Your task to perform on an android device: Go to accessibility settings Image 0: 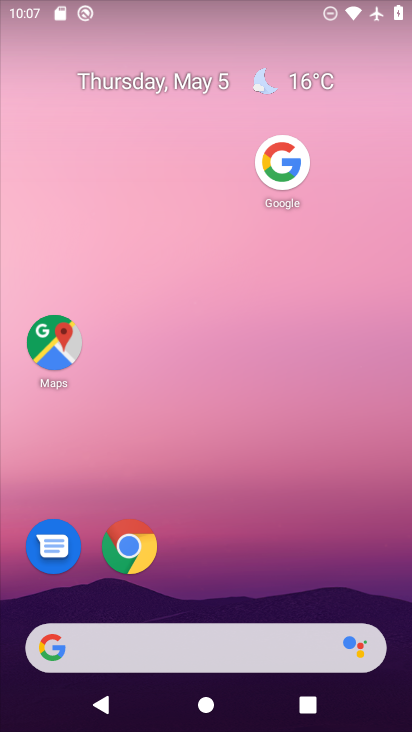
Step 0: drag from (208, 646) to (298, 67)
Your task to perform on an android device: Go to accessibility settings Image 1: 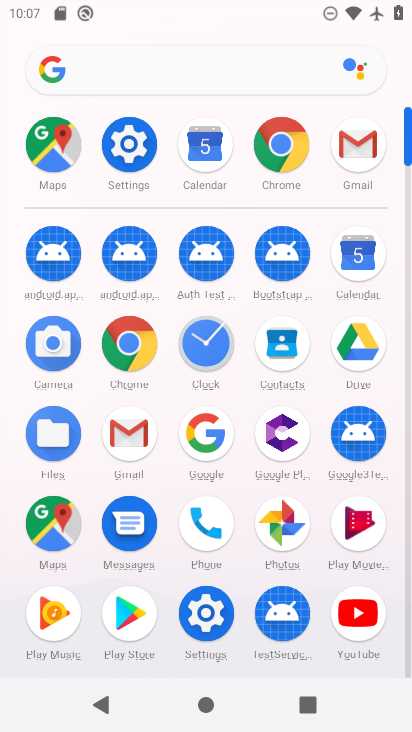
Step 1: click (123, 143)
Your task to perform on an android device: Go to accessibility settings Image 2: 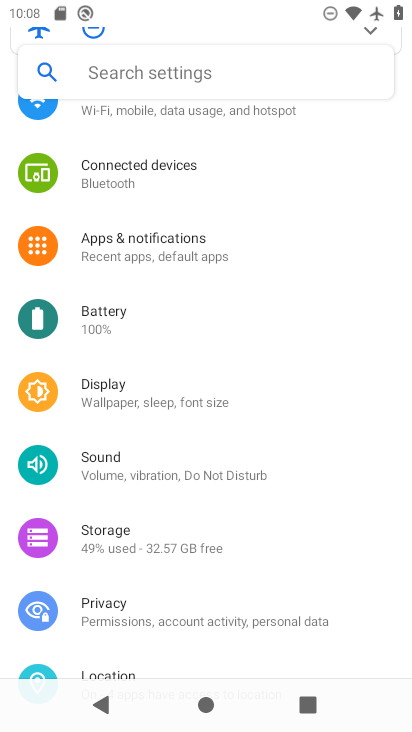
Step 2: drag from (186, 578) to (290, 201)
Your task to perform on an android device: Go to accessibility settings Image 3: 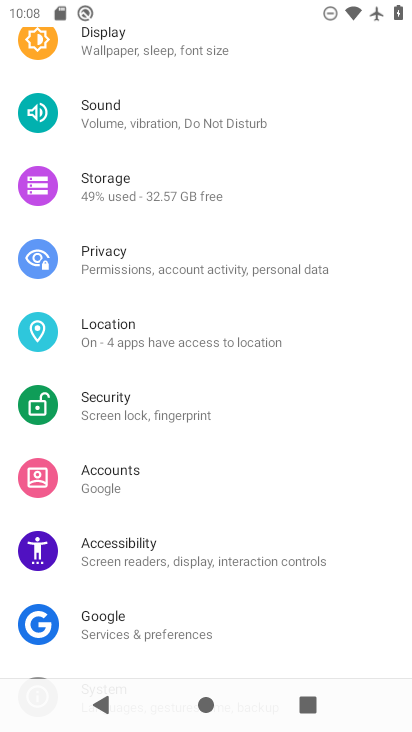
Step 3: click (124, 546)
Your task to perform on an android device: Go to accessibility settings Image 4: 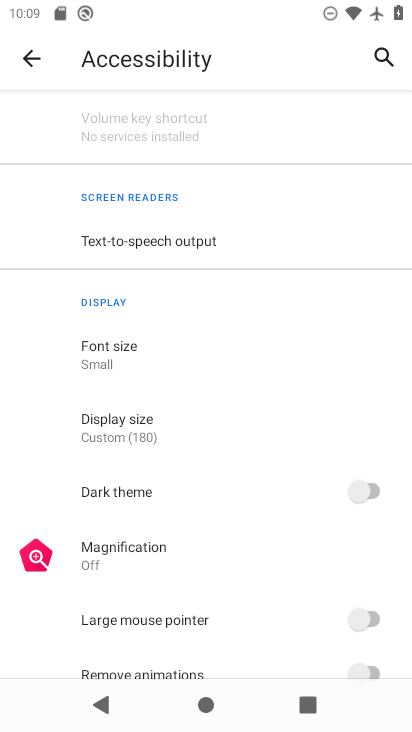
Step 4: task complete